Your task to perform on an android device: open app "Spotify: Music and Podcasts" (install if not already installed) and enter user name: "principled@inbox.com" and password: "arrests" Image 0: 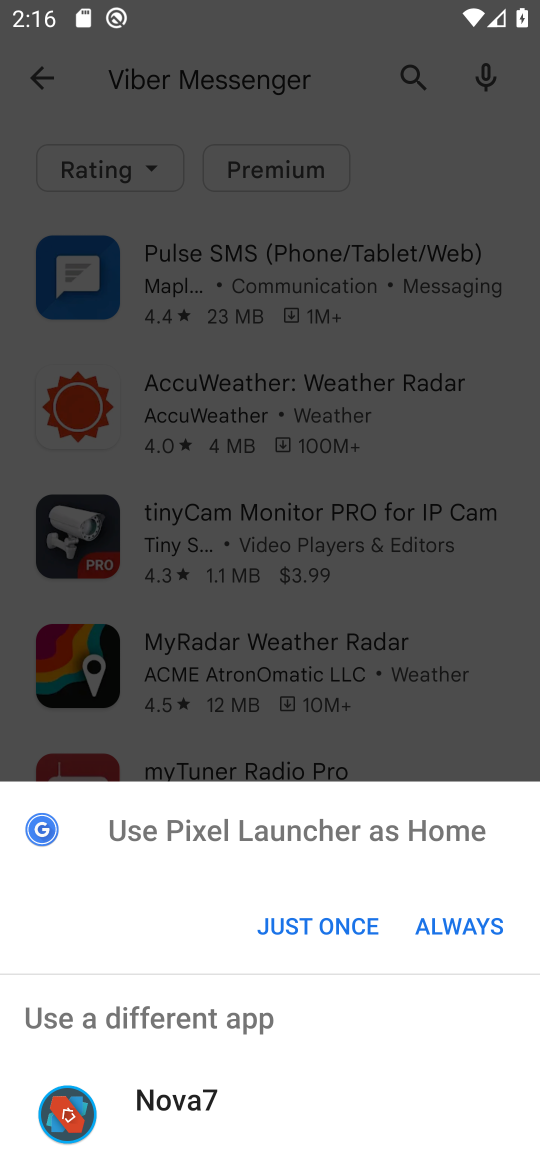
Step 0: click (323, 933)
Your task to perform on an android device: open app "Spotify: Music and Podcasts" (install if not already installed) and enter user name: "principled@inbox.com" and password: "arrests" Image 1: 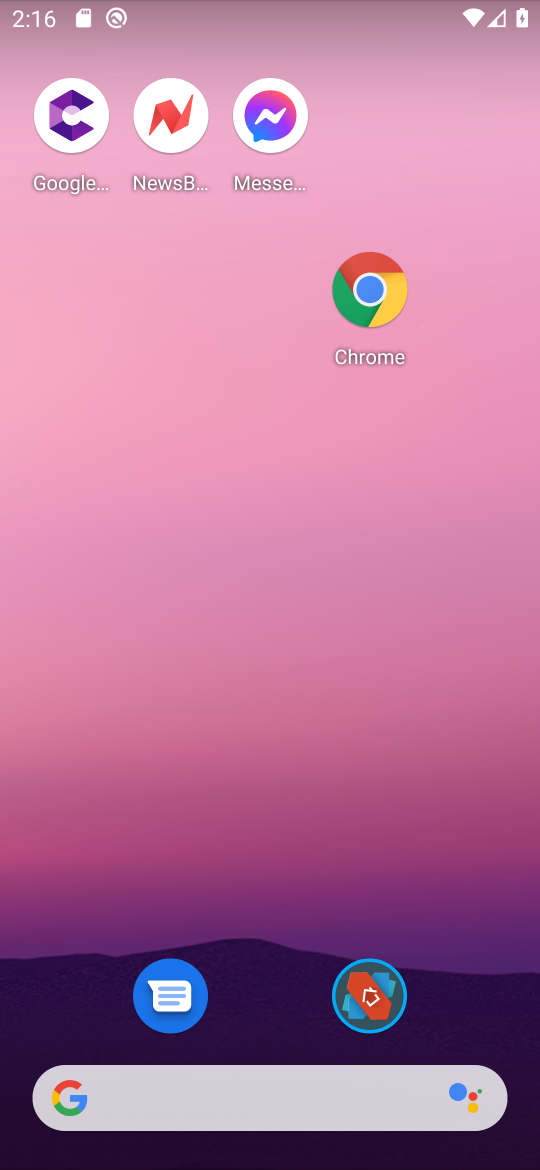
Step 1: drag from (277, 1027) to (210, 136)
Your task to perform on an android device: open app "Spotify: Music and Podcasts" (install if not already installed) and enter user name: "principled@inbox.com" and password: "arrests" Image 2: 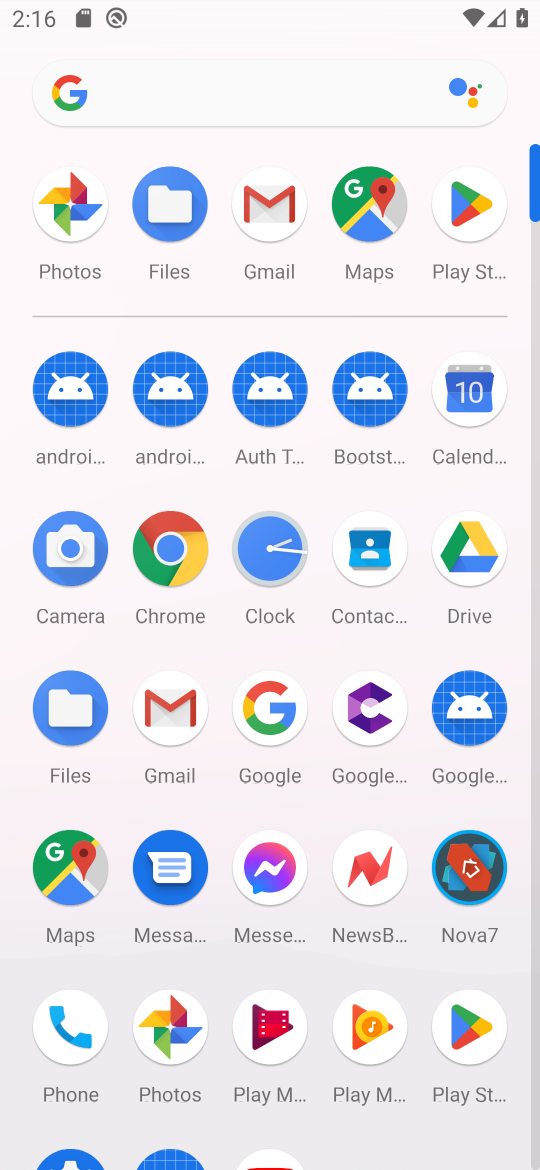
Step 2: click (470, 225)
Your task to perform on an android device: open app "Spotify: Music and Podcasts" (install if not already installed) and enter user name: "principled@inbox.com" and password: "arrests" Image 3: 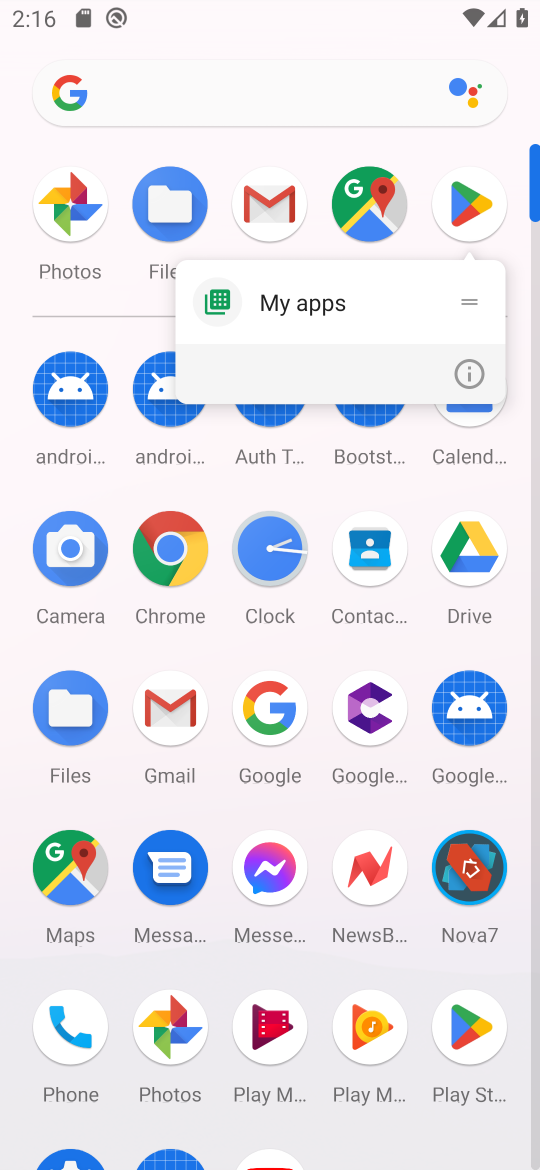
Step 3: click (473, 222)
Your task to perform on an android device: open app "Spotify: Music and Podcasts" (install if not already installed) and enter user name: "principled@inbox.com" and password: "arrests" Image 4: 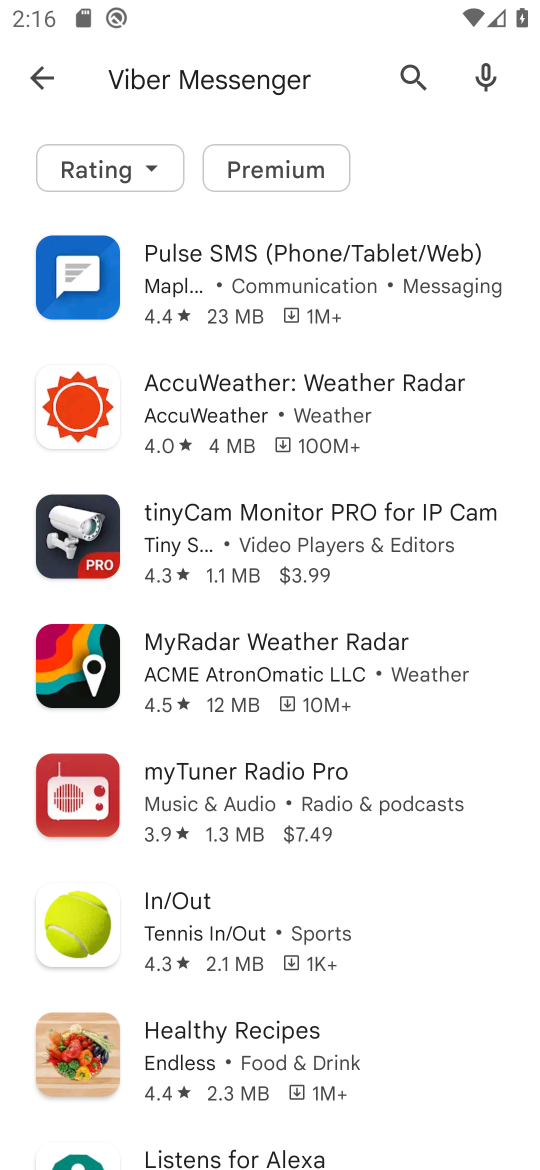
Step 4: press back button
Your task to perform on an android device: open app "Spotify: Music and Podcasts" (install if not already installed) and enter user name: "principled@inbox.com" and password: "arrests" Image 5: 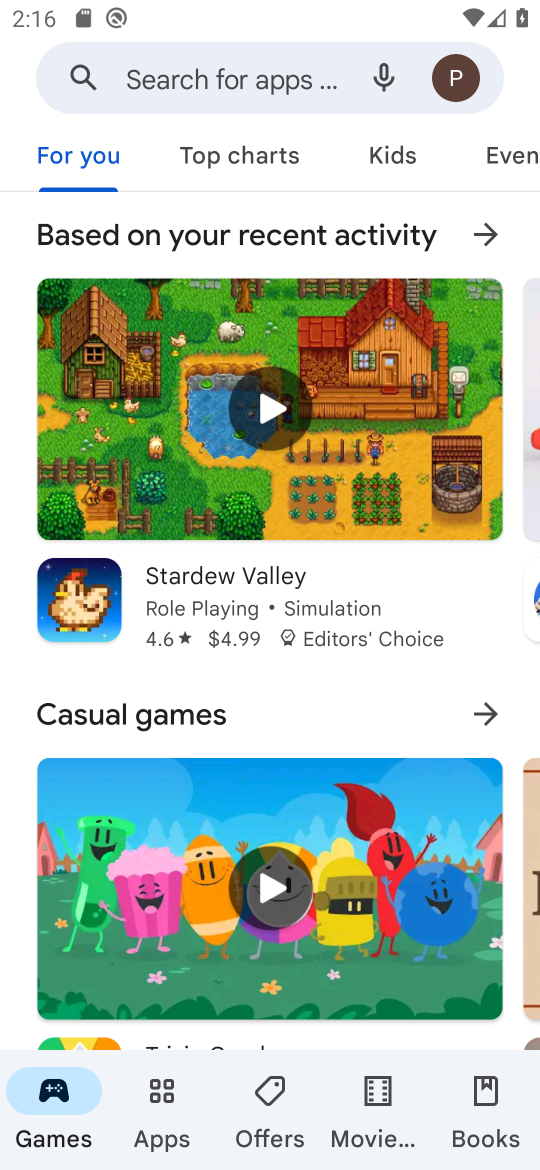
Step 5: click (180, 66)
Your task to perform on an android device: open app "Spotify: Music and Podcasts" (install if not already installed) and enter user name: "principled@inbox.com" and password: "arrests" Image 6: 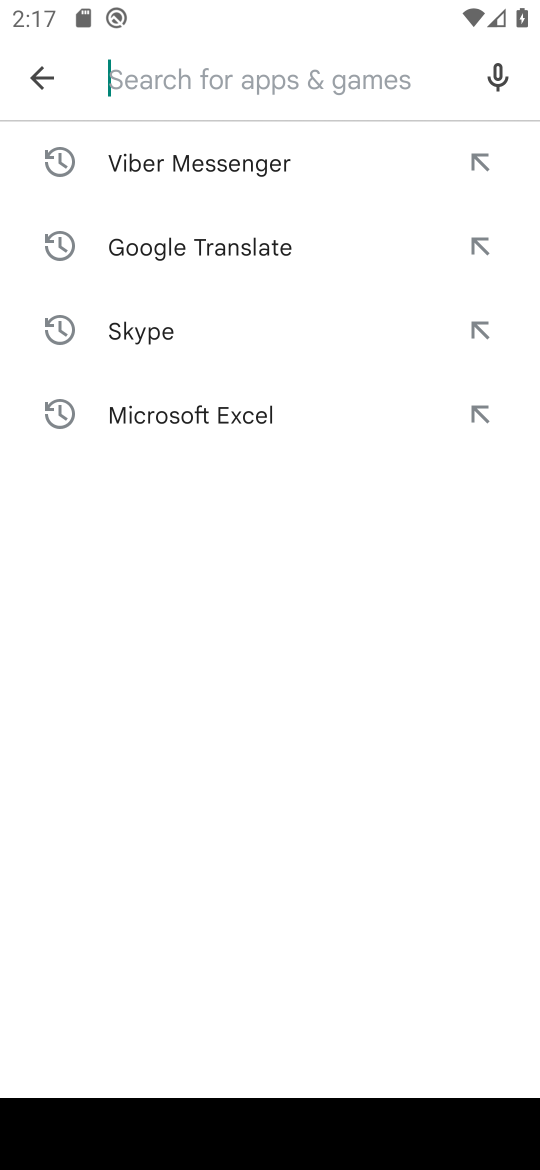
Step 6: type "Spotify: Music and Podcasts"
Your task to perform on an android device: open app "Spotify: Music and Podcasts" (install if not already installed) and enter user name: "principled@inbox.com" and password: "arrests" Image 7: 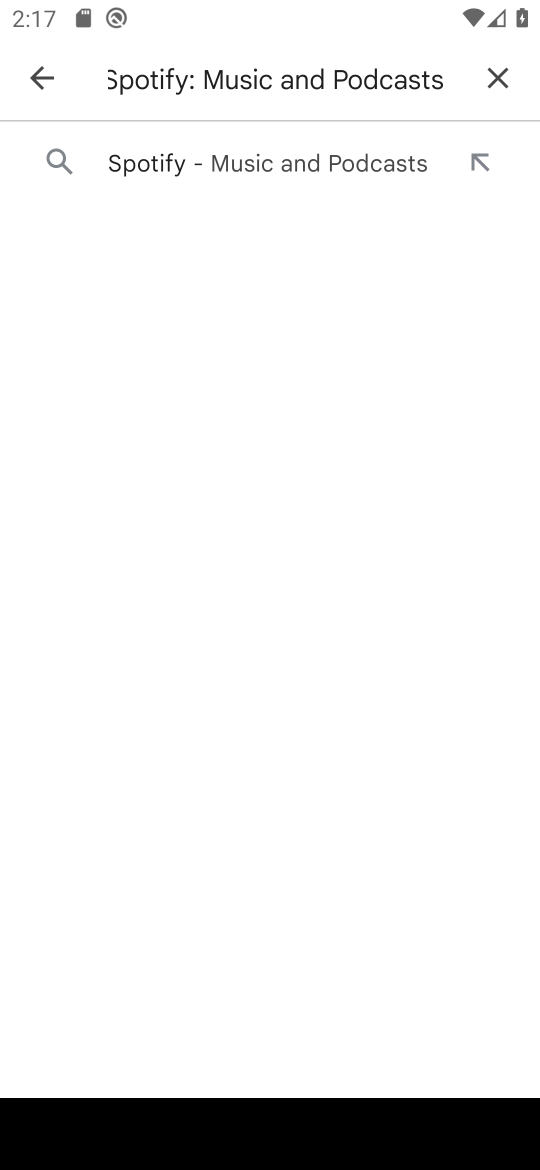
Step 7: press enter
Your task to perform on an android device: open app "Spotify: Music and Podcasts" (install if not already installed) and enter user name: "principled@inbox.com" and password: "arrests" Image 8: 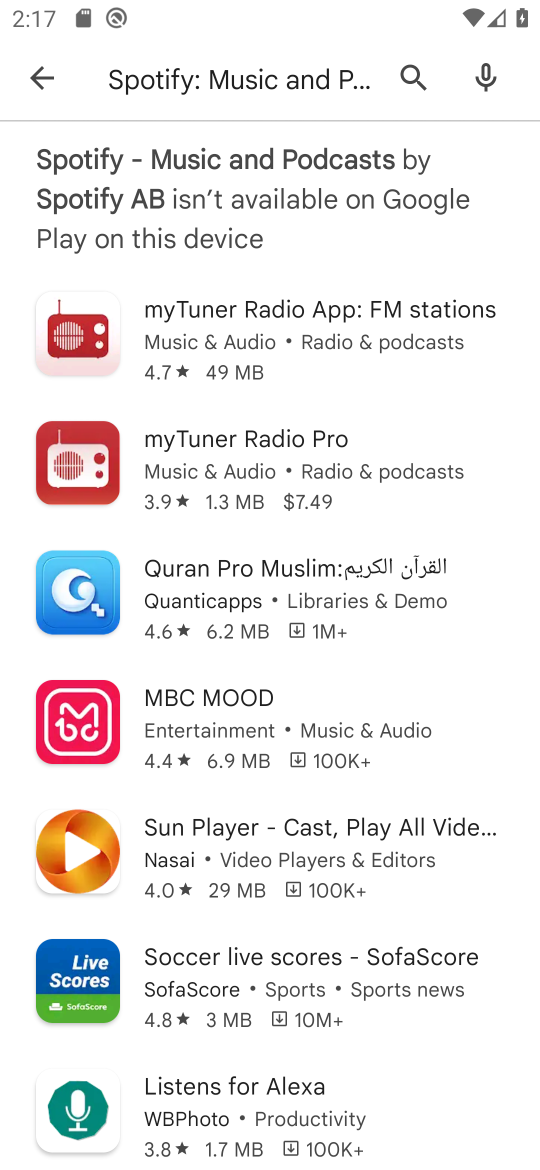
Step 8: task complete